Your task to perform on an android device: change the upload size in google photos Image 0: 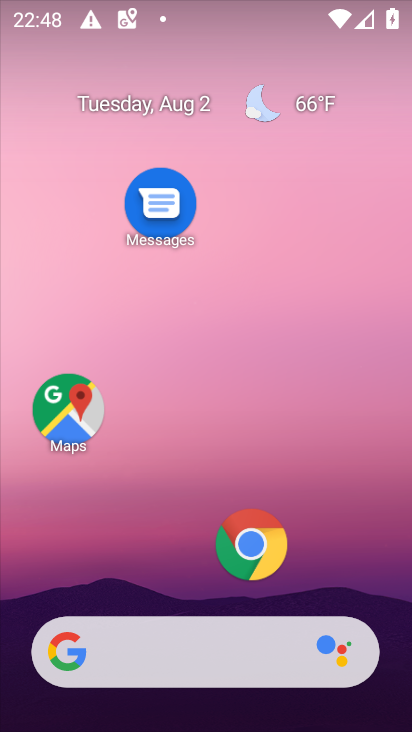
Step 0: drag from (192, 577) to (193, 137)
Your task to perform on an android device: change the upload size in google photos Image 1: 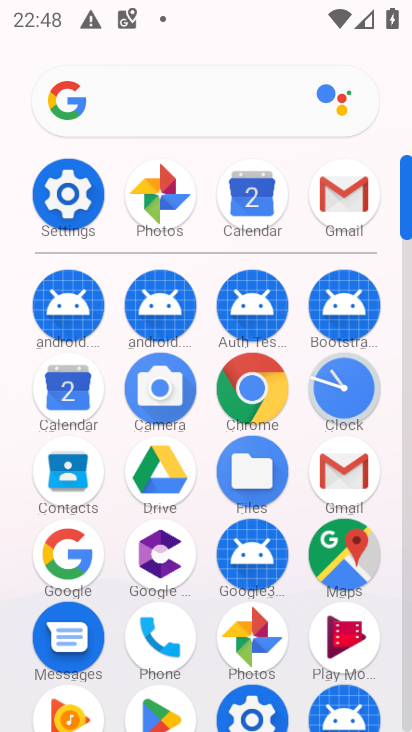
Step 1: click (152, 199)
Your task to perform on an android device: change the upload size in google photos Image 2: 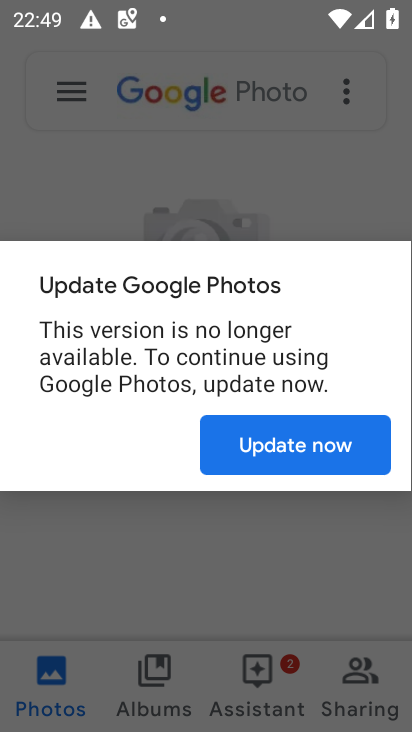
Step 2: click (327, 448)
Your task to perform on an android device: change the upload size in google photos Image 3: 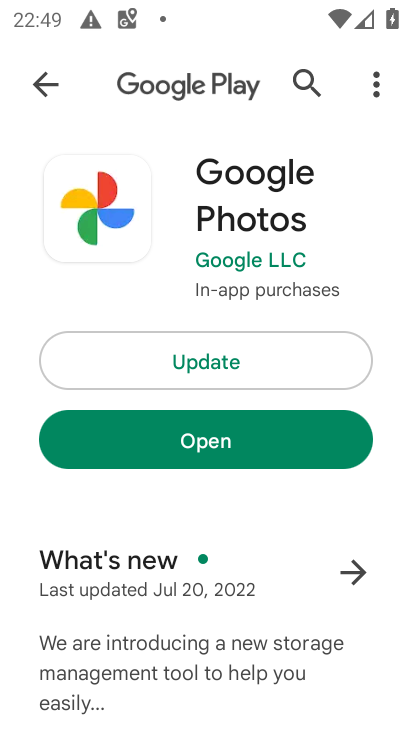
Step 3: click (244, 440)
Your task to perform on an android device: change the upload size in google photos Image 4: 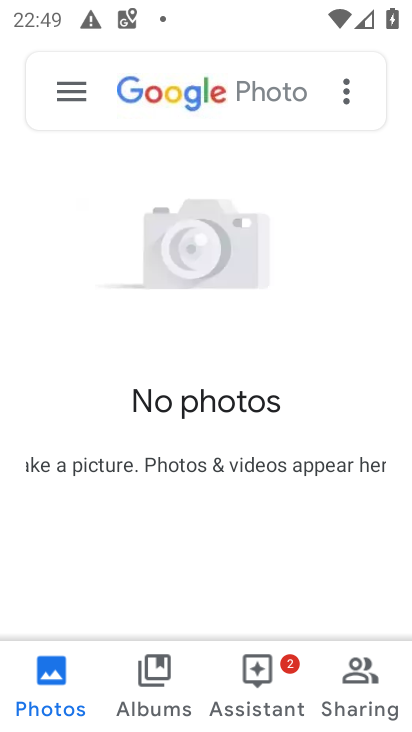
Step 4: click (73, 110)
Your task to perform on an android device: change the upload size in google photos Image 5: 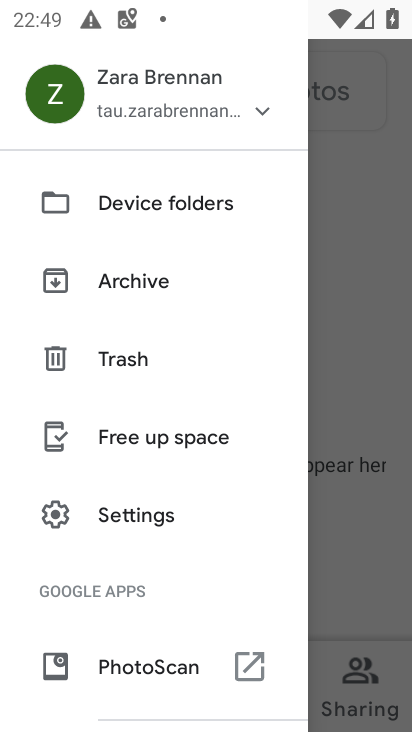
Step 5: click (140, 506)
Your task to perform on an android device: change the upload size in google photos Image 6: 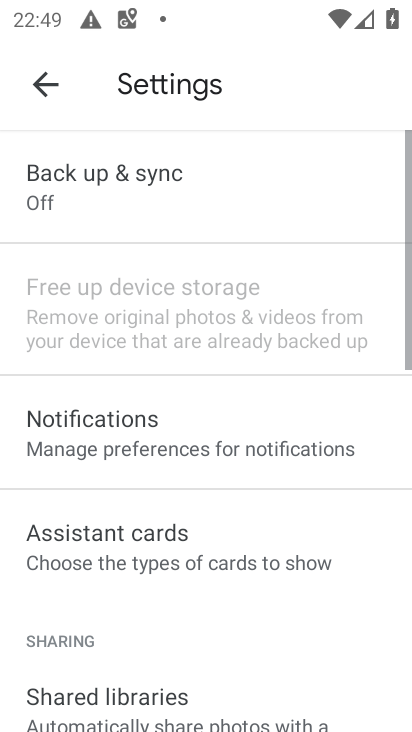
Step 6: click (162, 217)
Your task to perform on an android device: change the upload size in google photos Image 7: 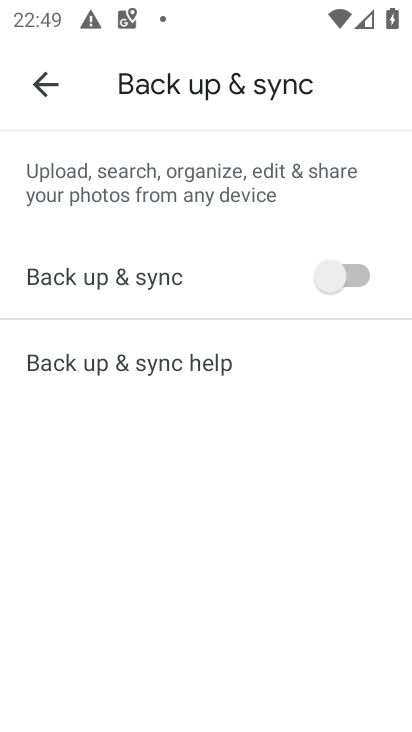
Step 7: click (341, 269)
Your task to perform on an android device: change the upload size in google photos Image 8: 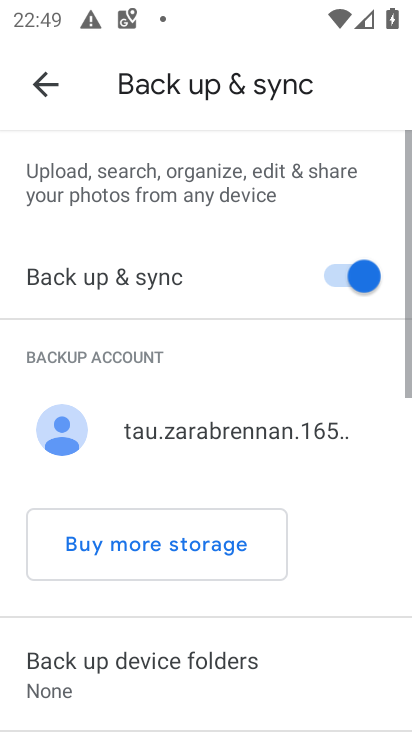
Step 8: drag from (189, 641) to (203, 228)
Your task to perform on an android device: change the upload size in google photos Image 9: 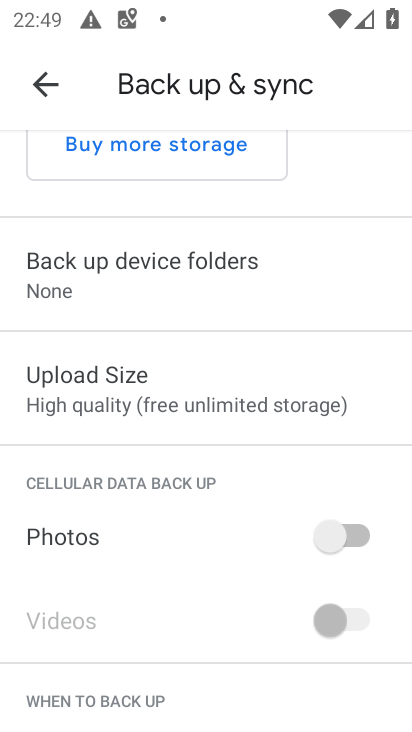
Step 9: click (137, 398)
Your task to perform on an android device: change the upload size in google photos Image 10: 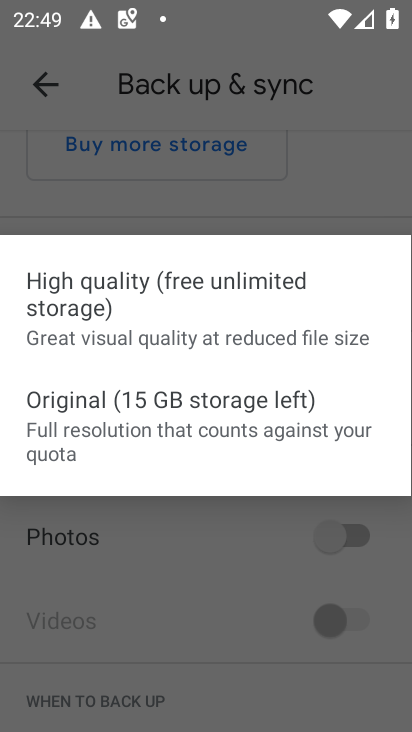
Step 10: click (141, 406)
Your task to perform on an android device: change the upload size in google photos Image 11: 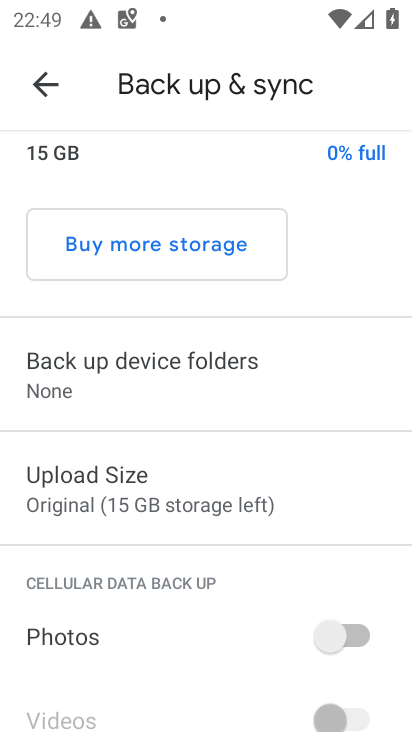
Step 11: task complete